Your task to perform on an android device: change the clock style Image 0: 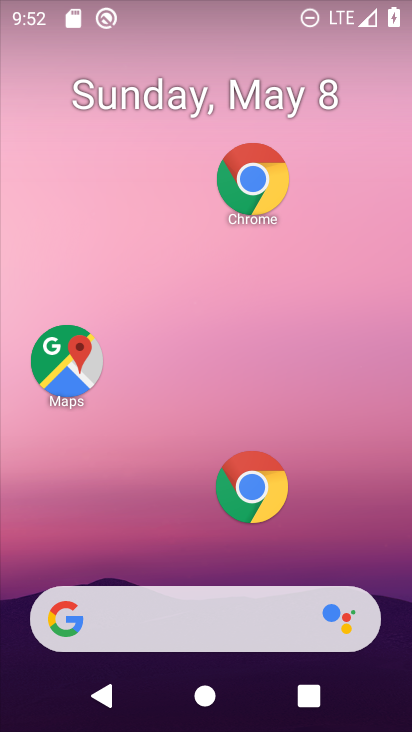
Step 0: drag from (159, 410) to (136, 77)
Your task to perform on an android device: change the clock style Image 1: 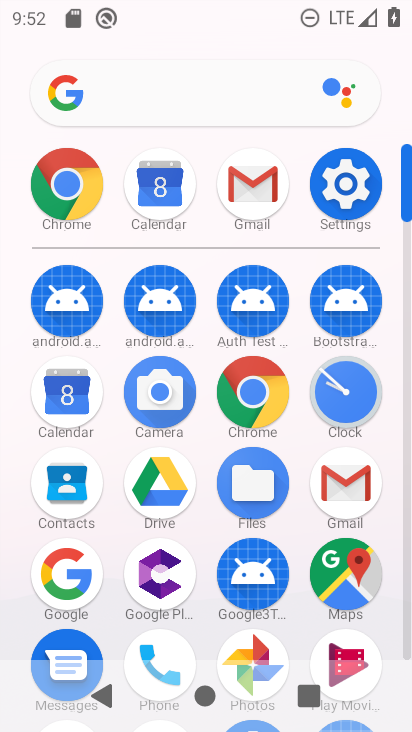
Step 1: click (355, 402)
Your task to perform on an android device: change the clock style Image 2: 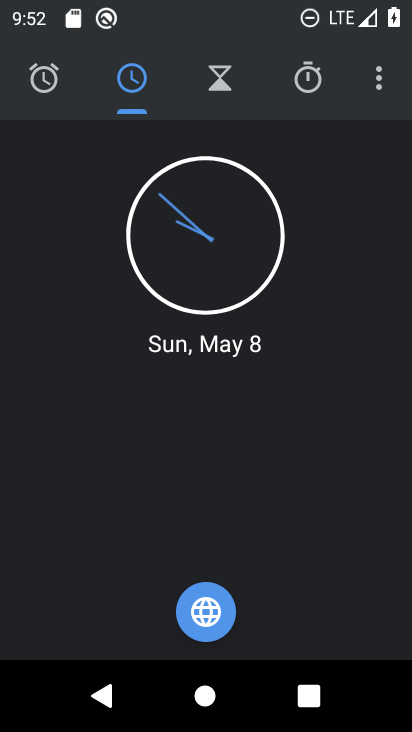
Step 2: click (382, 90)
Your task to perform on an android device: change the clock style Image 3: 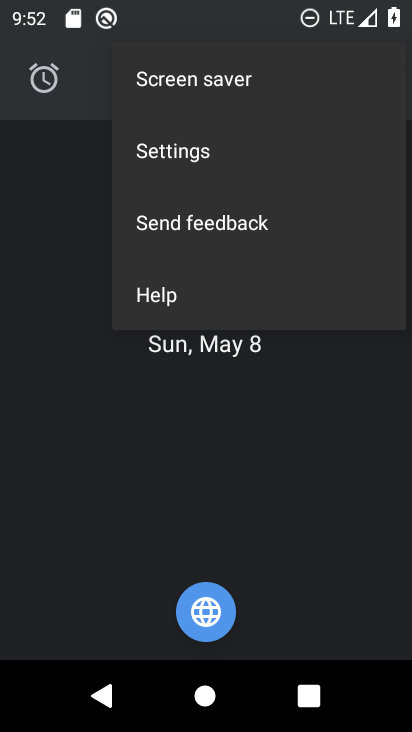
Step 3: click (226, 145)
Your task to perform on an android device: change the clock style Image 4: 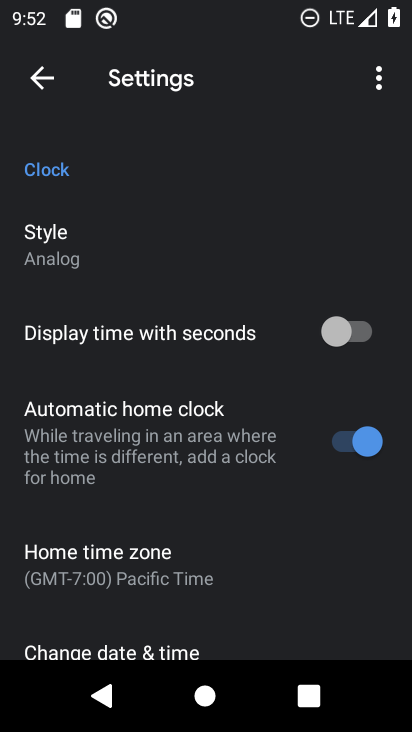
Step 4: click (145, 238)
Your task to perform on an android device: change the clock style Image 5: 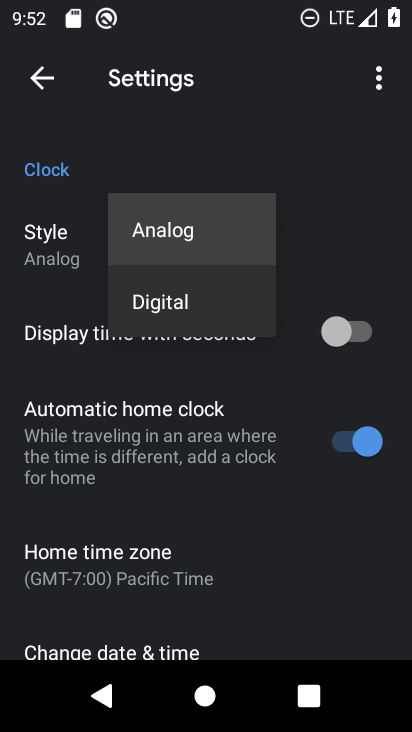
Step 5: click (180, 290)
Your task to perform on an android device: change the clock style Image 6: 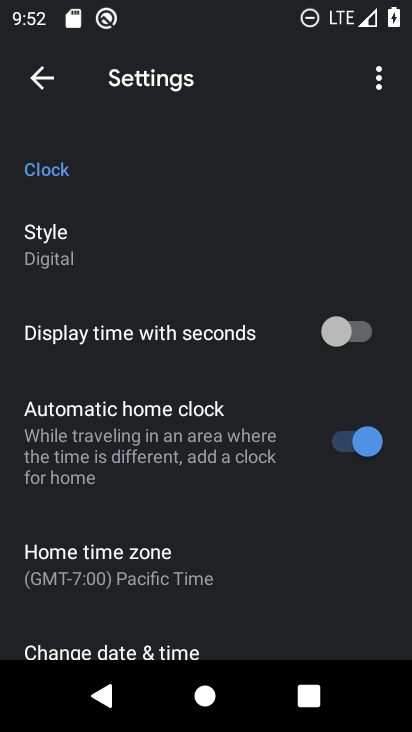
Step 6: click (50, 74)
Your task to perform on an android device: change the clock style Image 7: 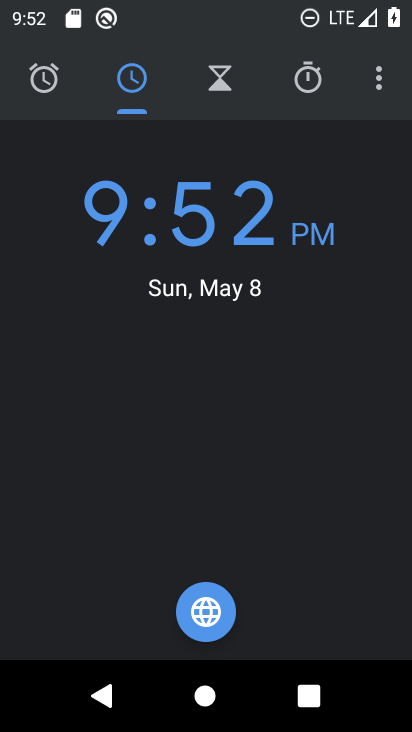
Step 7: task complete